Your task to perform on an android device: open app "Facebook Messenger" Image 0: 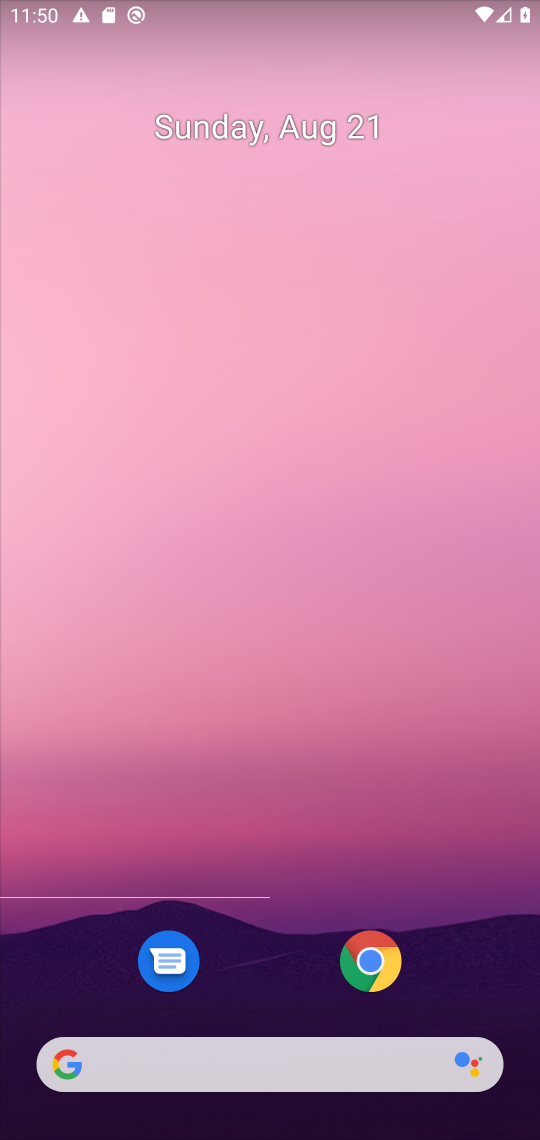
Step 0: press home button
Your task to perform on an android device: open app "Facebook Messenger" Image 1: 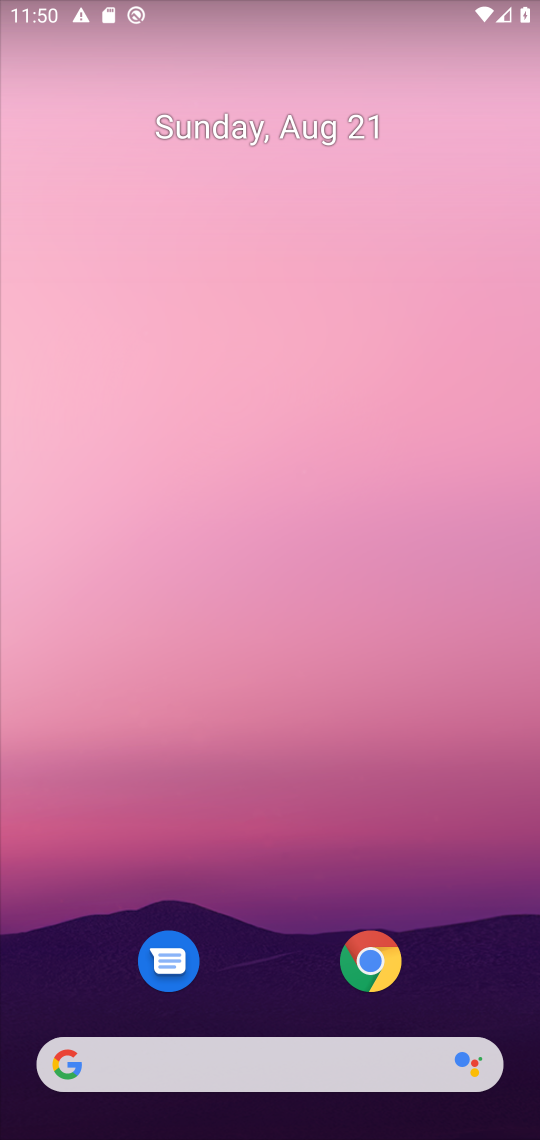
Step 1: drag from (465, 887) to (469, 100)
Your task to perform on an android device: open app "Facebook Messenger" Image 2: 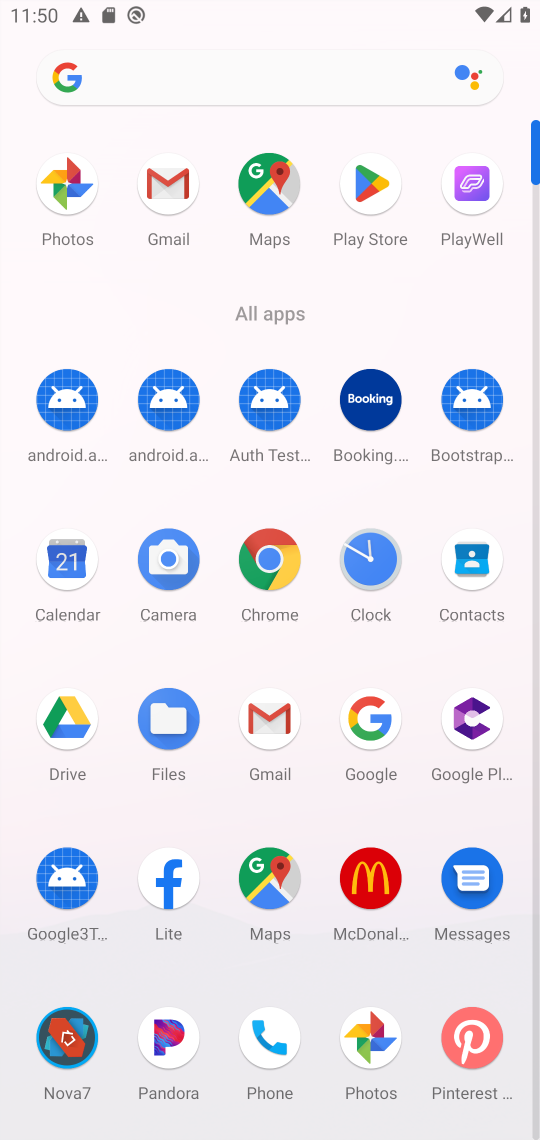
Step 2: click (372, 187)
Your task to perform on an android device: open app "Facebook Messenger" Image 3: 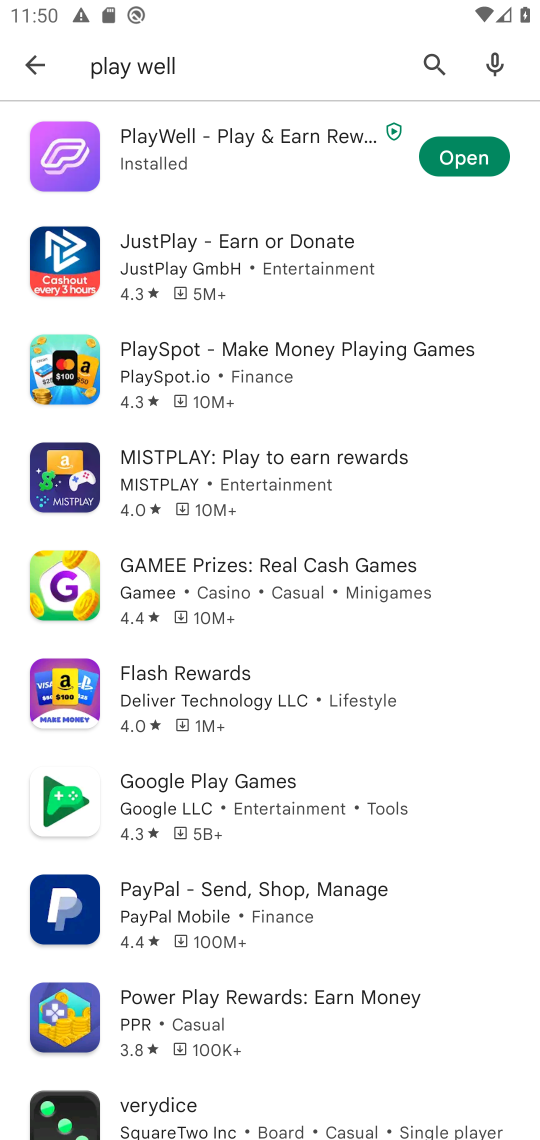
Step 3: press back button
Your task to perform on an android device: open app "Facebook Messenger" Image 4: 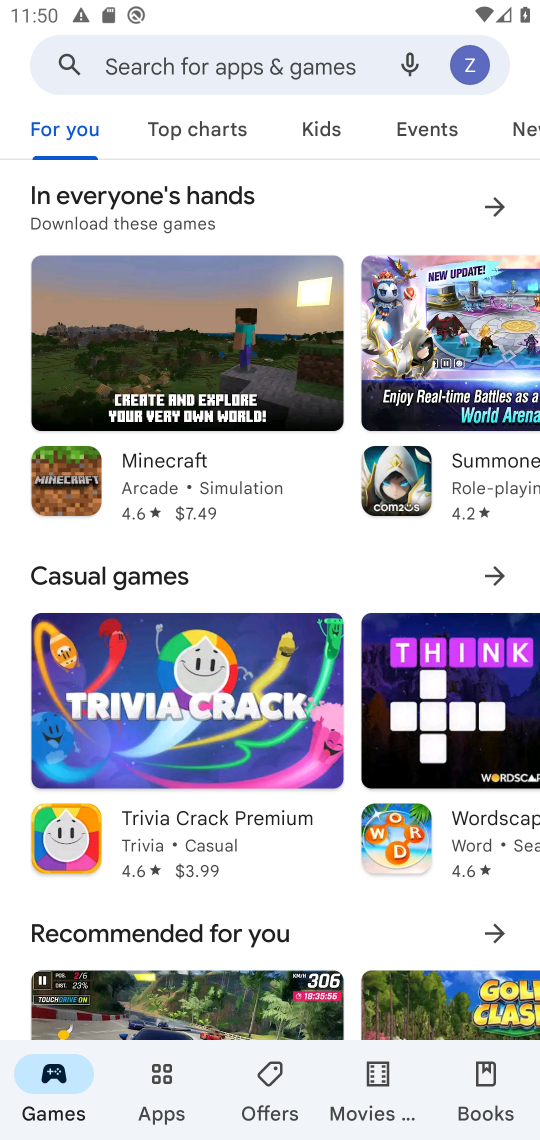
Step 4: click (276, 62)
Your task to perform on an android device: open app "Facebook Messenger" Image 5: 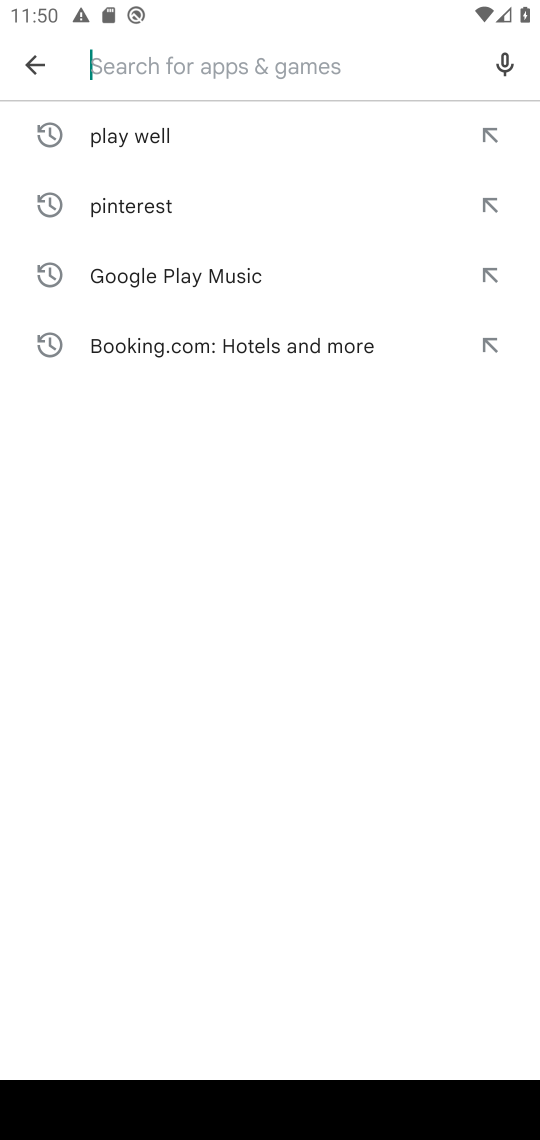
Step 5: press enter
Your task to perform on an android device: open app "Facebook Messenger" Image 6: 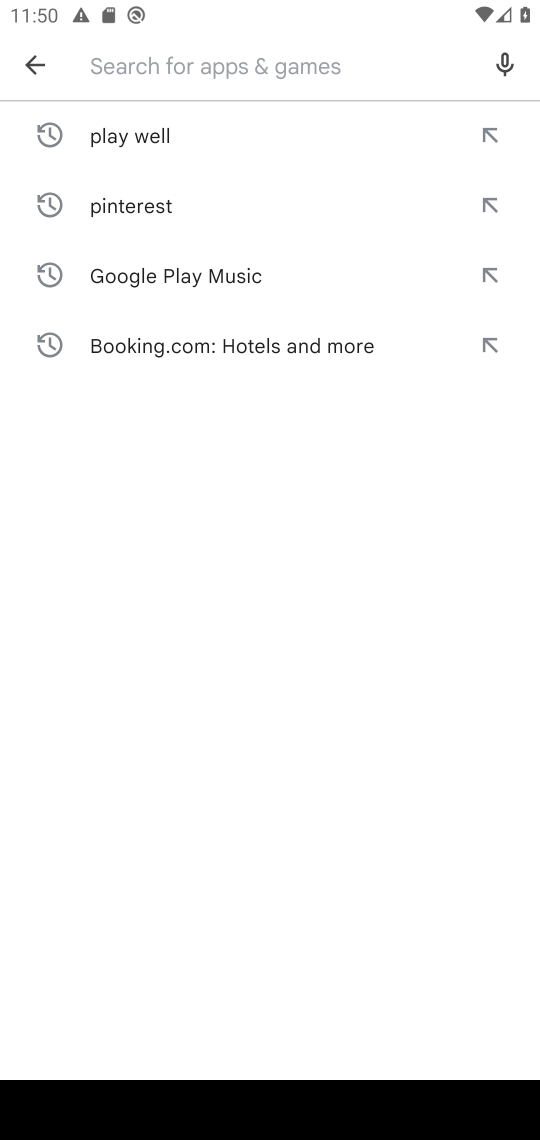
Step 6: type "Facebook Messenger"
Your task to perform on an android device: open app "Facebook Messenger" Image 7: 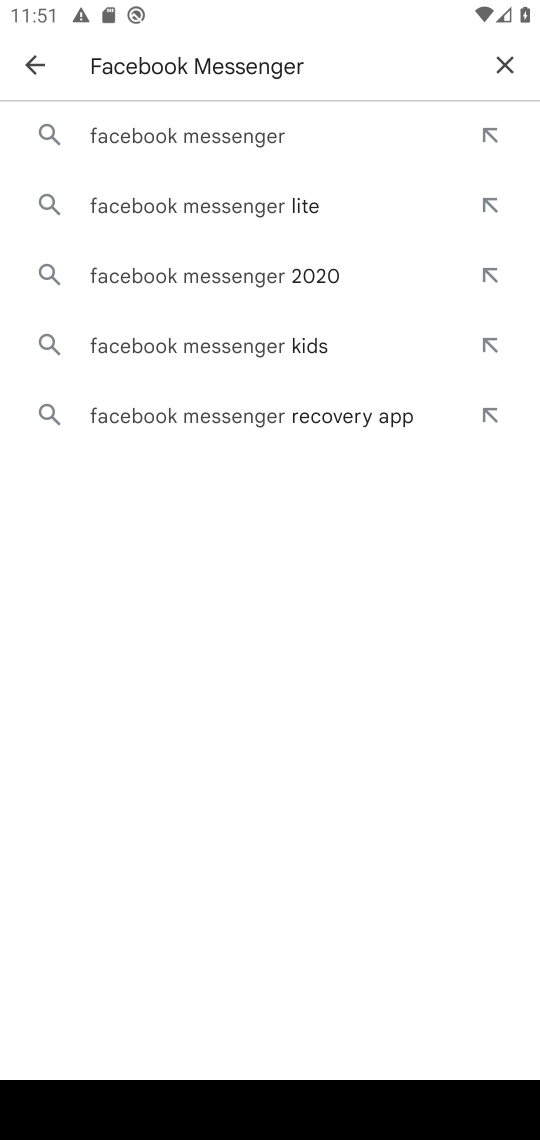
Step 7: click (254, 129)
Your task to perform on an android device: open app "Facebook Messenger" Image 8: 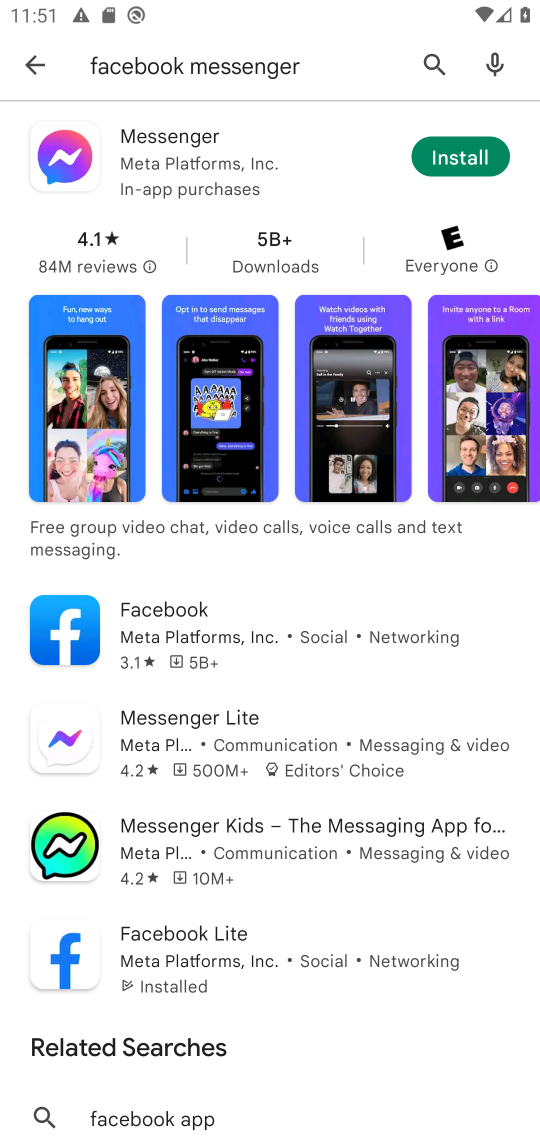
Step 8: task complete